Your task to perform on an android device: toggle javascript in the chrome app Image 0: 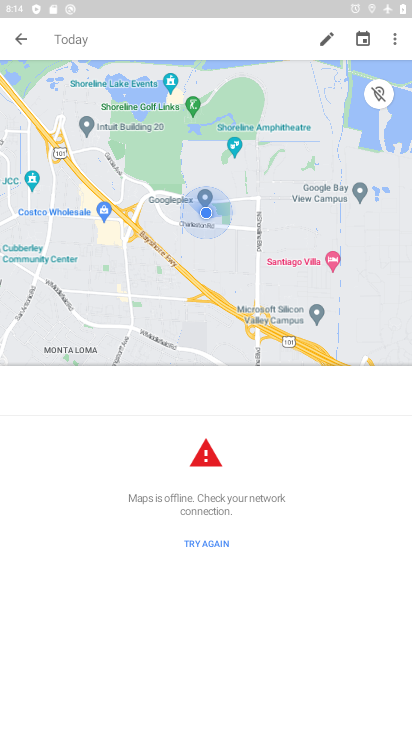
Step 0: press home button
Your task to perform on an android device: toggle javascript in the chrome app Image 1: 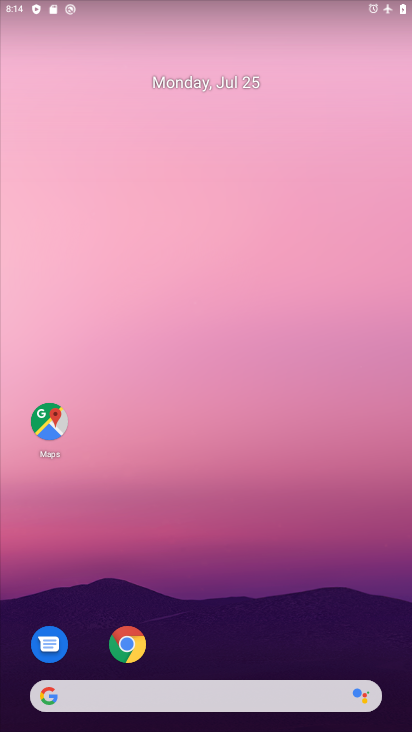
Step 1: click (117, 659)
Your task to perform on an android device: toggle javascript in the chrome app Image 2: 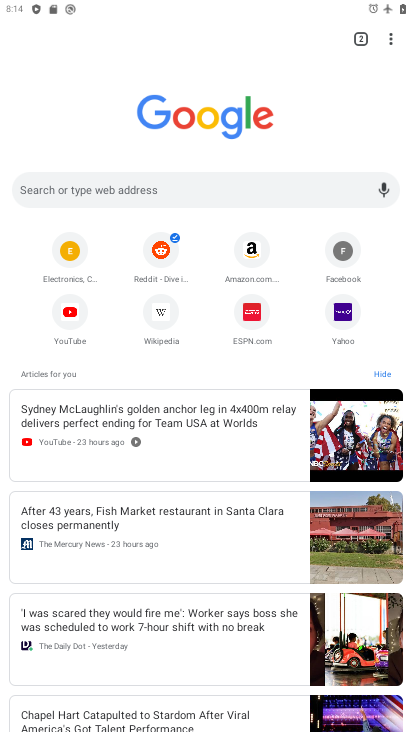
Step 2: click (389, 44)
Your task to perform on an android device: toggle javascript in the chrome app Image 3: 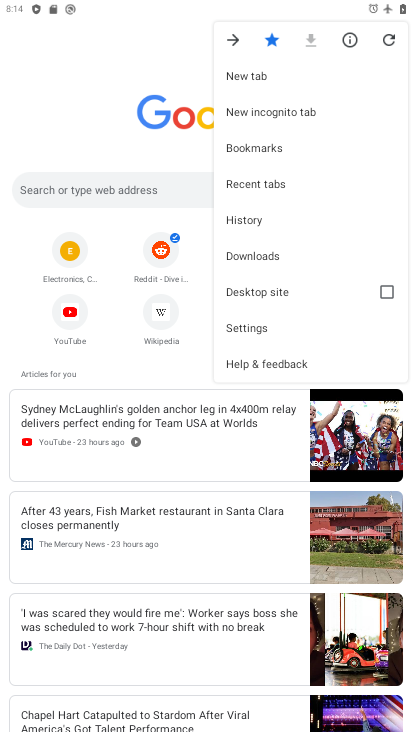
Step 3: click (246, 321)
Your task to perform on an android device: toggle javascript in the chrome app Image 4: 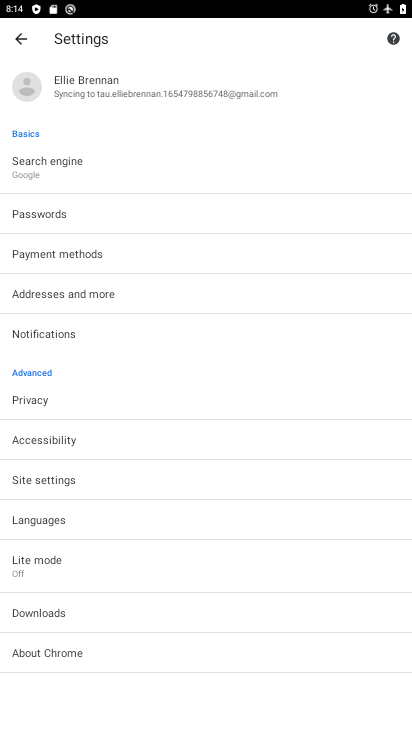
Step 4: click (58, 478)
Your task to perform on an android device: toggle javascript in the chrome app Image 5: 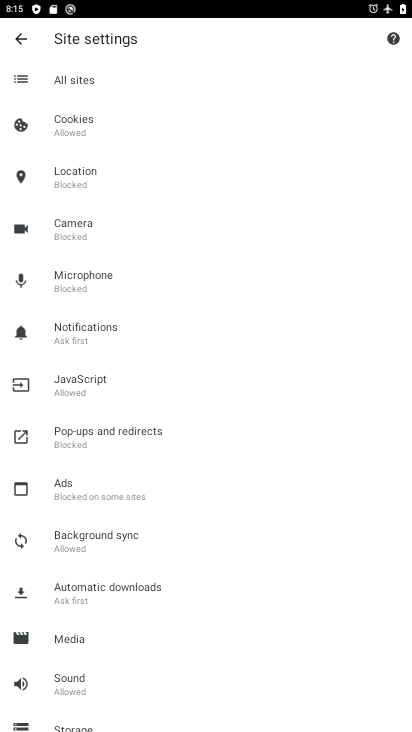
Step 5: click (69, 390)
Your task to perform on an android device: toggle javascript in the chrome app Image 6: 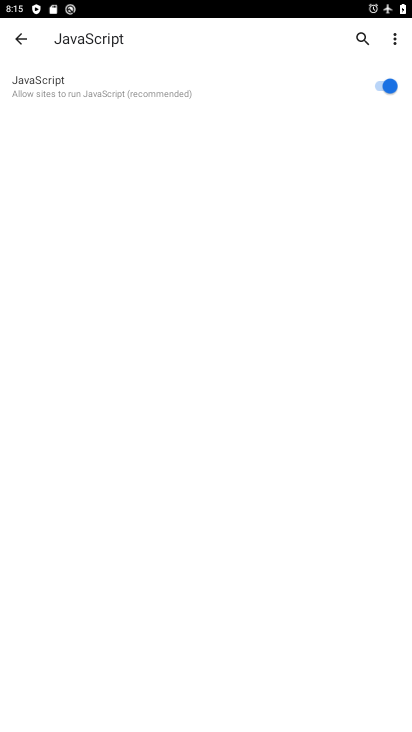
Step 6: click (382, 85)
Your task to perform on an android device: toggle javascript in the chrome app Image 7: 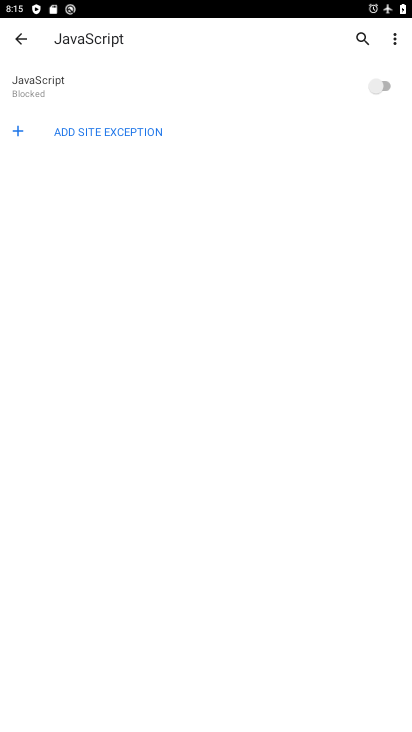
Step 7: task complete